Your task to perform on an android device: turn on notifications settings in the gmail app Image 0: 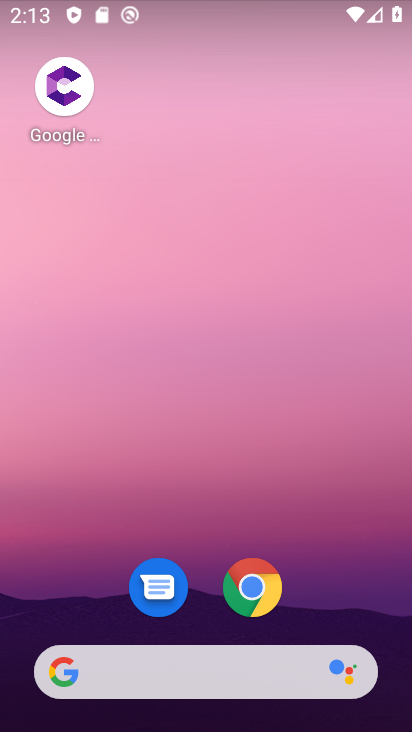
Step 0: drag from (389, 615) to (286, 192)
Your task to perform on an android device: turn on notifications settings in the gmail app Image 1: 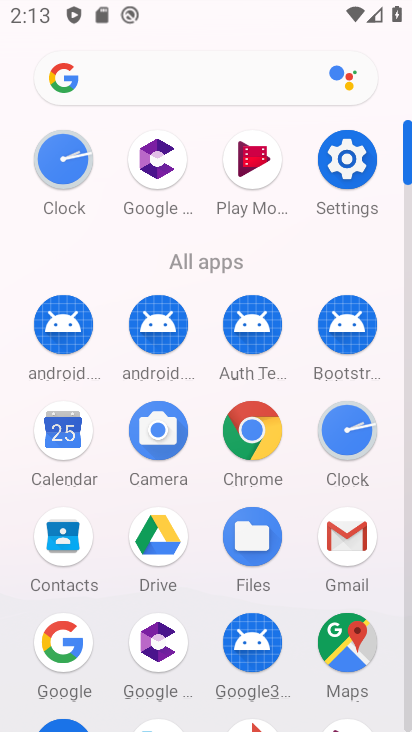
Step 1: click (346, 553)
Your task to perform on an android device: turn on notifications settings in the gmail app Image 2: 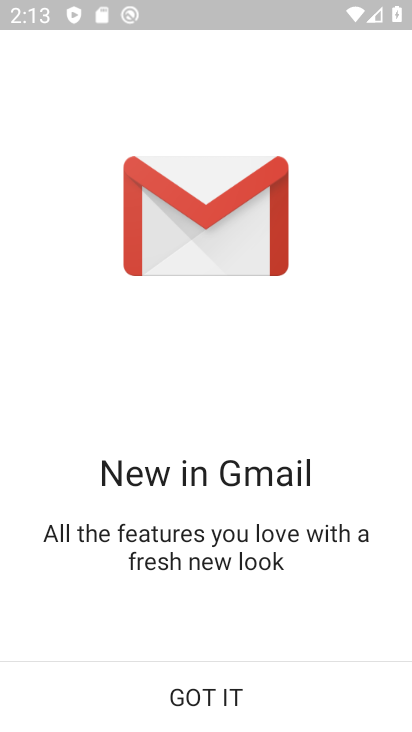
Step 2: click (223, 706)
Your task to perform on an android device: turn on notifications settings in the gmail app Image 3: 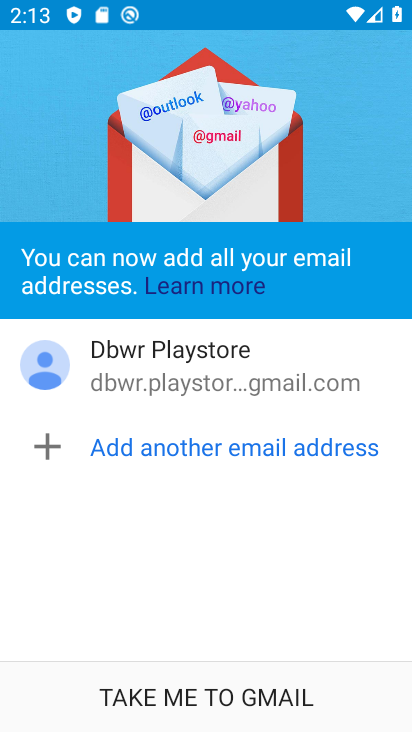
Step 3: click (223, 706)
Your task to perform on an android device: turn on notifications settings in the gmail app Image 4: 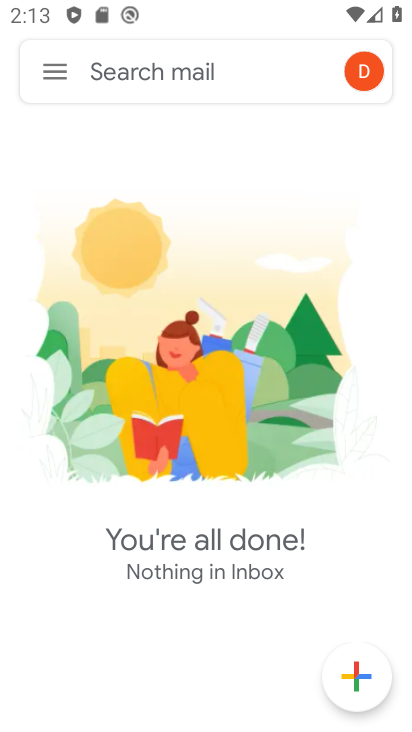
Step 4: click (56, 78)
Your task to perform on an android device: turn on notifications settings in the gmail app Image 5: 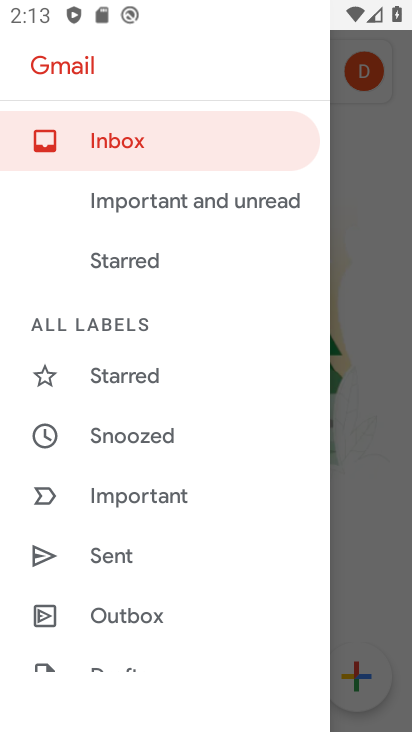
Step 5: drag from (175, 643) to (162, 268)
Your task to perform on an android device: turn on notifications settings in the gmail app Image 6: 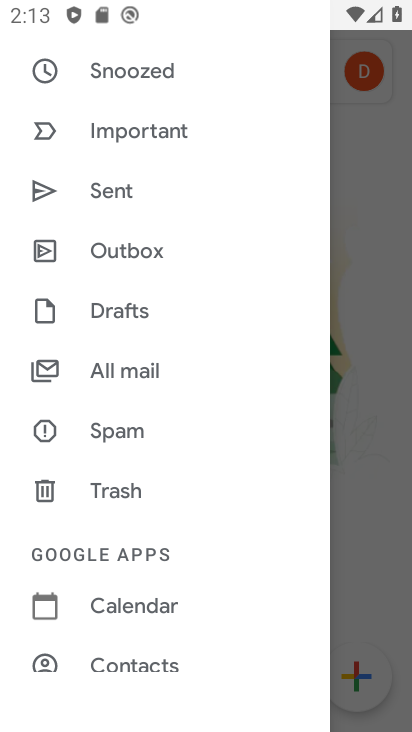
Step 6: drag from (150, 650) to (126, 265)
Your task to perform on an android device: turn on notifications settings in the gmail app Image 7: 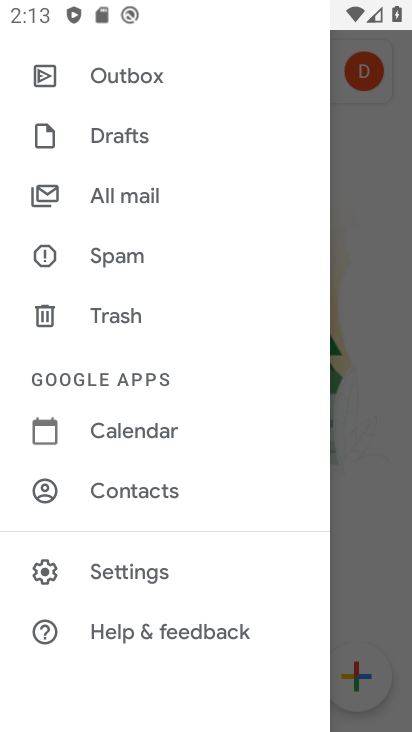
Step 7: click (115, 591)
Your task to perform on an android device: turn on notifications settings in the gmail app Image 8: 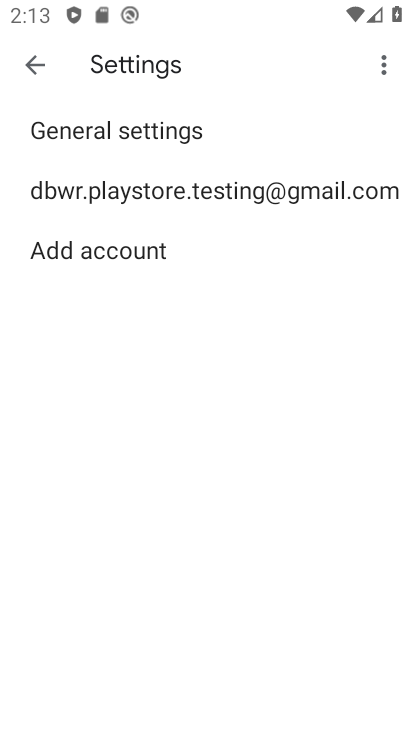
Step 8: click (216, 192)
Your task to perform on an android device: turn on notifications settings in the gmail app Image 9: 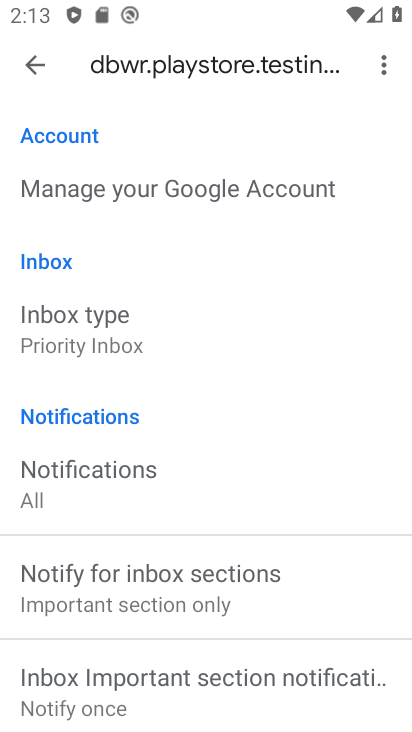
Step 9: drag from (213, 684) to (186, 327)
Your task to perform on an android device: turn on notifications settings in the gmail app Image 10: 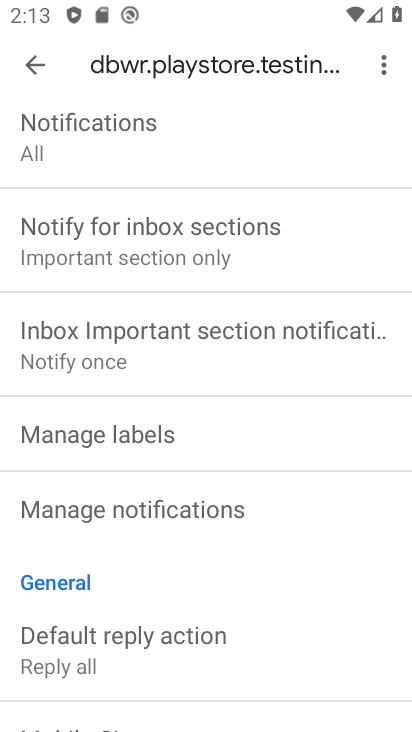
Step 10: click (197, 500)
Your task to perform on an android device: turn on notifications settings in the gmail app Image 11: 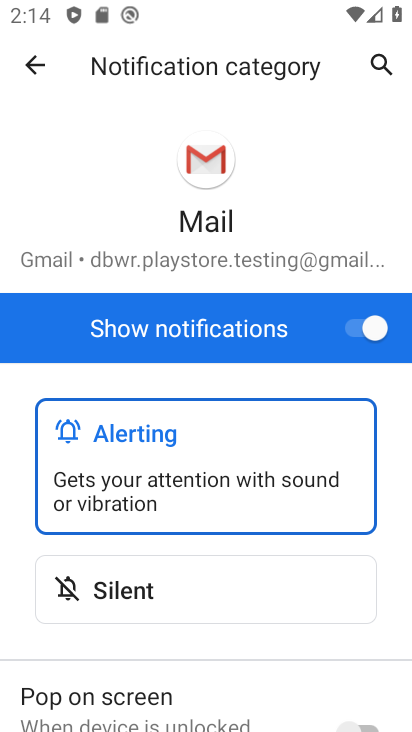
Step 11: drag from (389, 635) to (359, 466)
Your task to perform on an android device: turn on notifications settings in the gmail app Image 12: 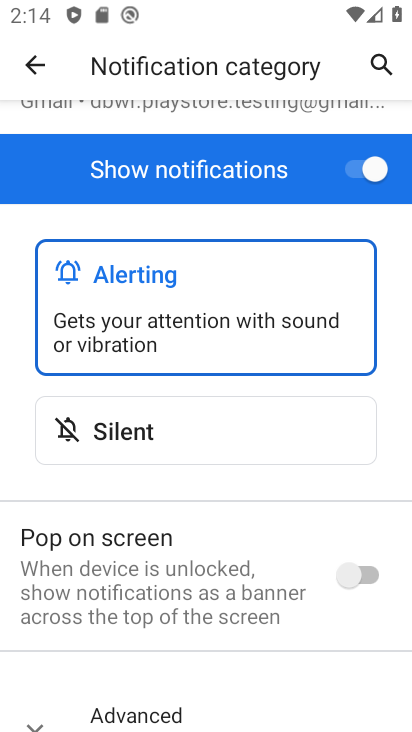
Step 12: click (367, 580)
Your task to perform on an android device: turn on notifications settings in the gmail app Image 13: 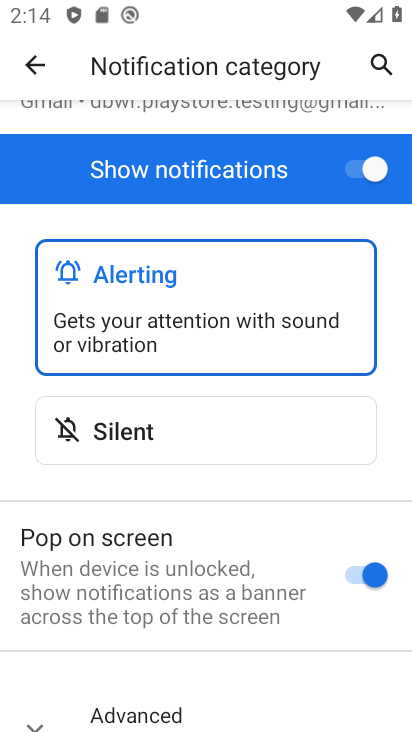
Step 13: task complete